Your task to perform on an android device: open app "Expedia: Hotels, Flights & Car" (install if not already installed) Image 0: 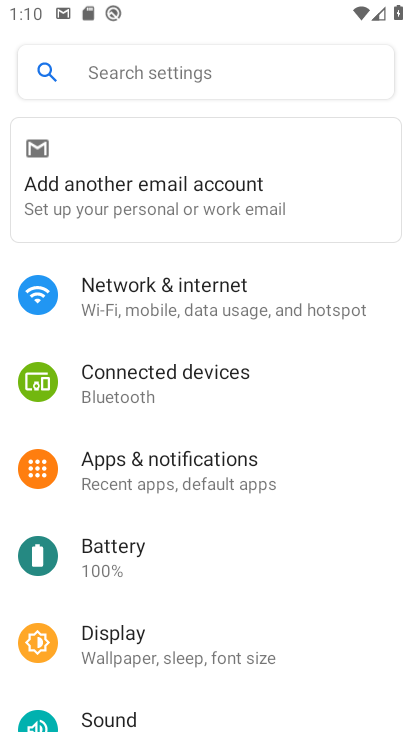
Step 0: press home button
Your task to perform on an android device: open app "Expedia: Hotels, Flights & Car" (install if not already installed) Image 1: 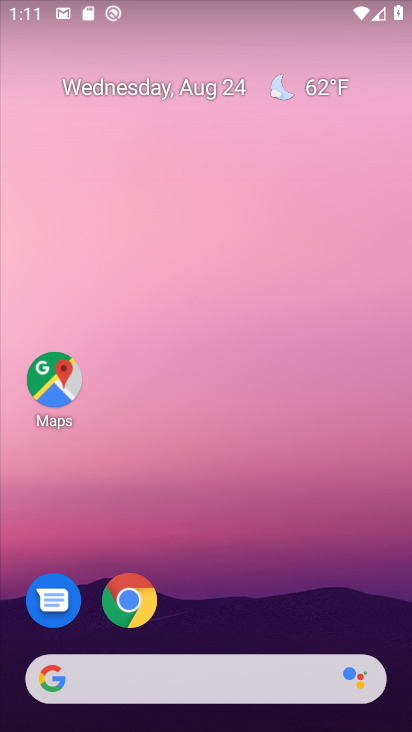
Step 1: drag from (302, 625) to (179, 83)
Your task to perform on an android device: open app "Expedia: Hotels, Flights & Car" (install if not already installed) Image 2: 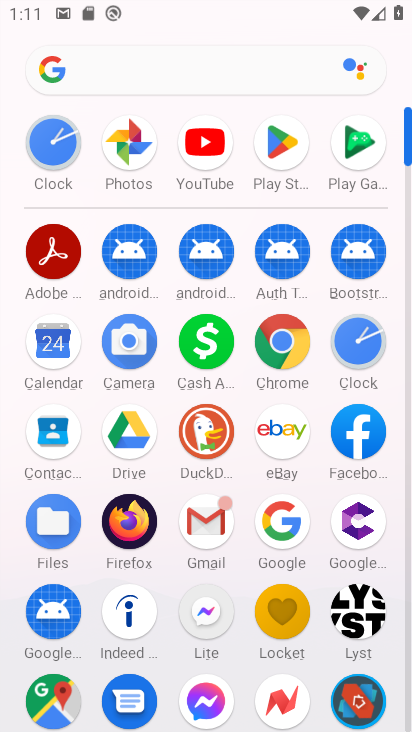
Step 2: click (274, 137)
Your task to perform on an android device: open app "Expedia: Hotels, Flights & Car" (install if not already installed) Image 3: 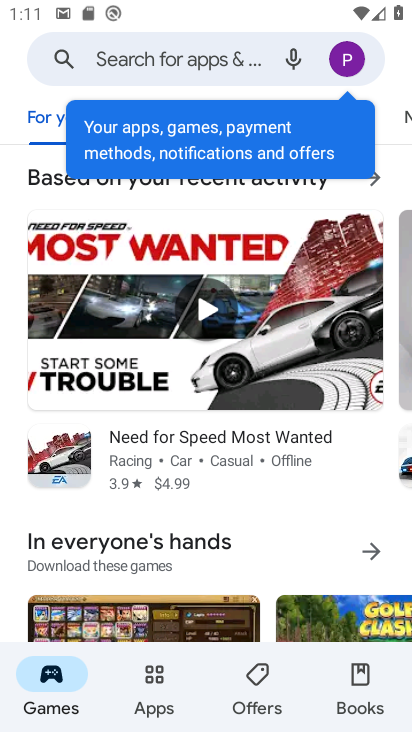
Step 3: press home button
Your task to perform on an android device: open app "Expedia: Hotels, Flights & Car" (install if not already installed) Image 4: 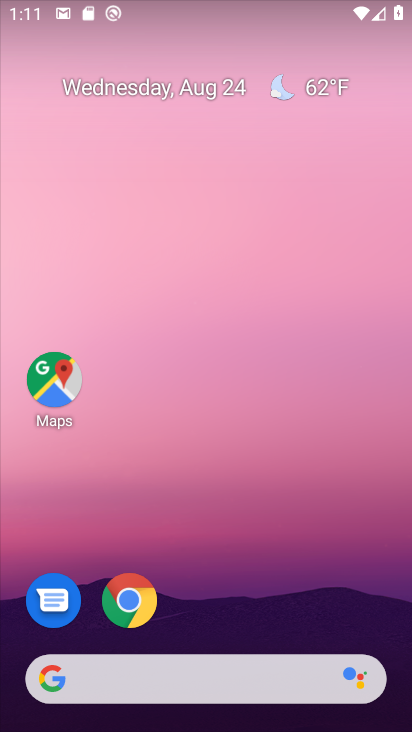
Step 4: drag from (277, 584) to (144, 10)
Your task to perform on an android device: open app "Expedia: Hotels, Flights & Car" (install if not already installed) Image 5: 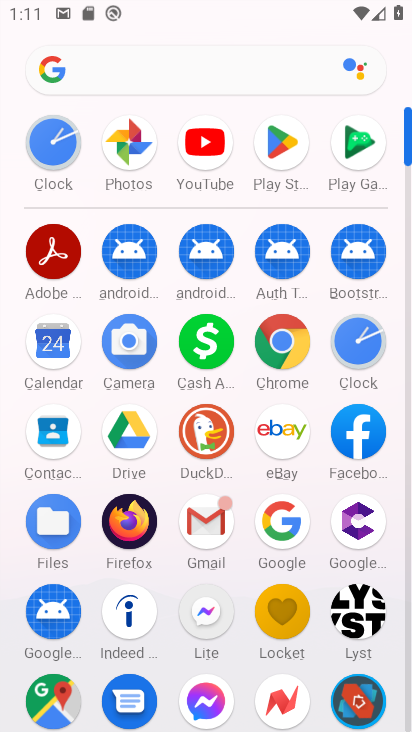
Step 5: click (284, 219)
Your task to perform on an android device: open app "Expedia: Hotels, Flights & Car" (install if not already installed) Image 6: 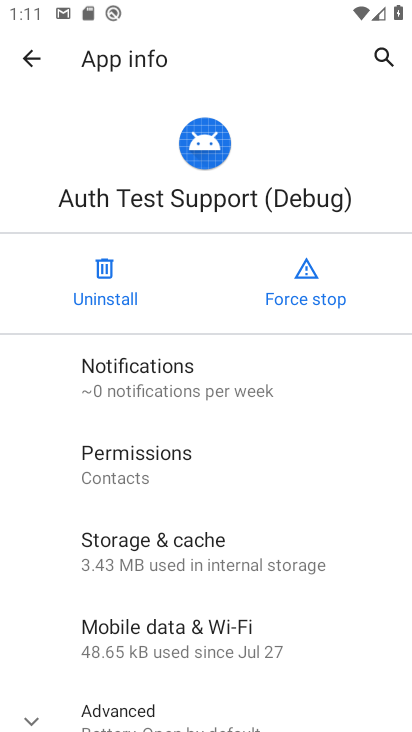
Step 6: click (284, 219)
Your task to perform on an android device: open app "Expedia: Hotels, Flights & Car" (install if not already installed) Image 7: 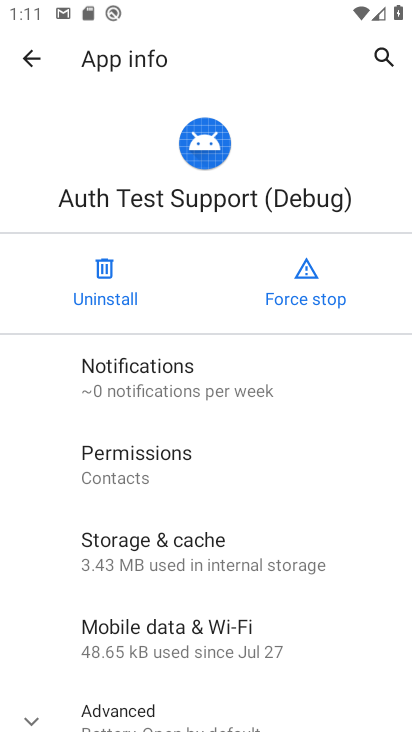
Step 7: click (389, 61)
Your task to perform on an android device: open app "Expedia: Hotels, Flights & Car" (install if not already installed) Image 8: 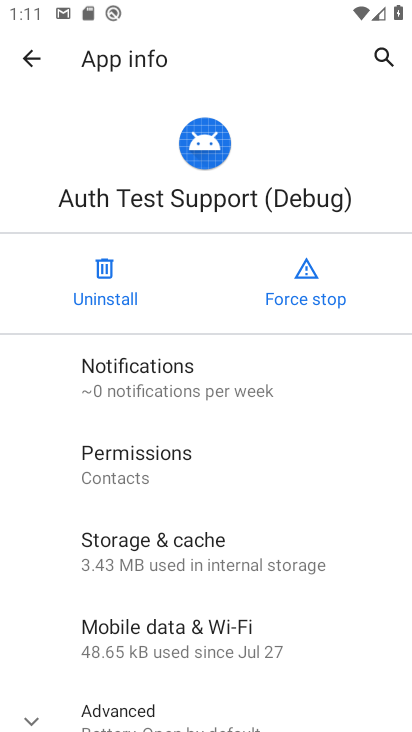
Step 8: press home button
Your task to perform on an android device: open app "Expedia: Hotels, Flights & Car" (install if not already installed) Image 9: 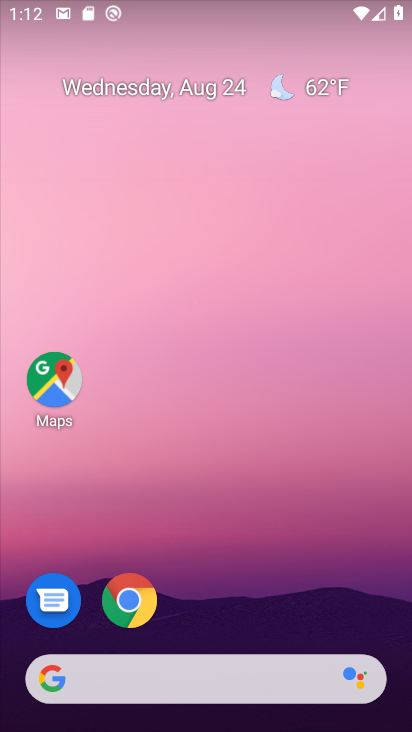
Step 9: drag from (270, 615) to (208, 182)
Your task to perform on an android device: open app "Expedia: Hotels, Flights & Car" (install if not already installed) Image 10: 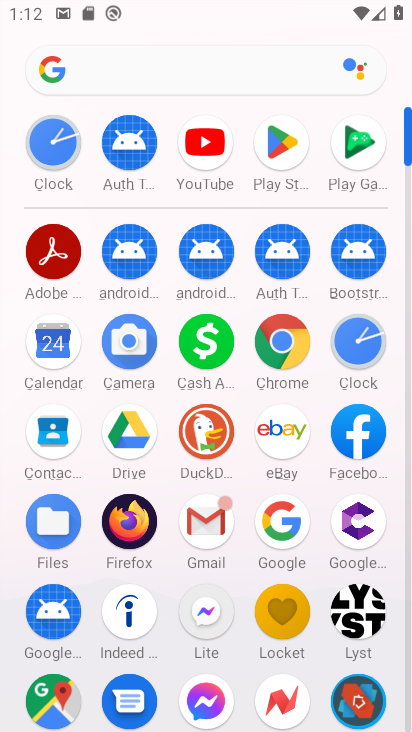
Step 10: click (273, 181)
Your task to perform on an android device: open app "Expedia: Hotels, Flights & Car" (install if not already installed) Image 11: 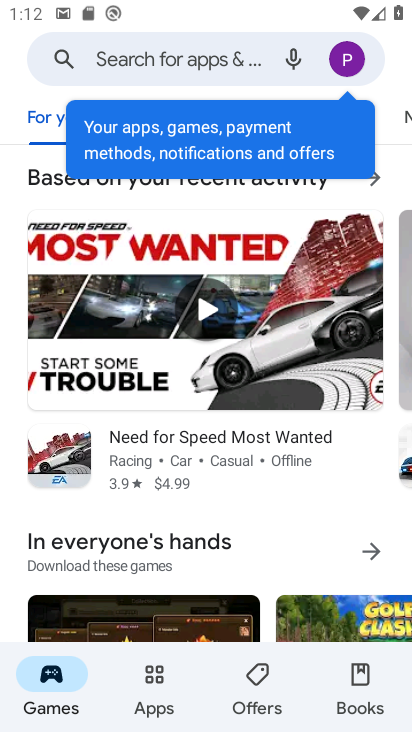
Step 11: click (163, 65)
Your task to perform on an android device: open app "Expedia: Hotels, Flights & Car" (install if not already installed) Image 12: 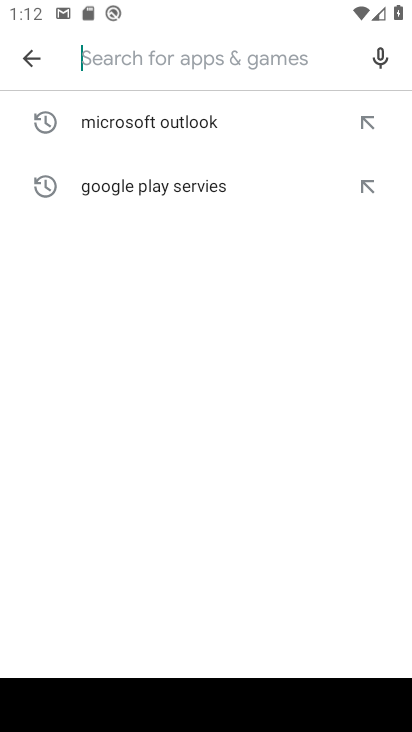
Step 12: type "expedia"
Your task to perform on an android device: open app "Expedia: Hotels, Flights & Car" (install if not already installed) Image 13: 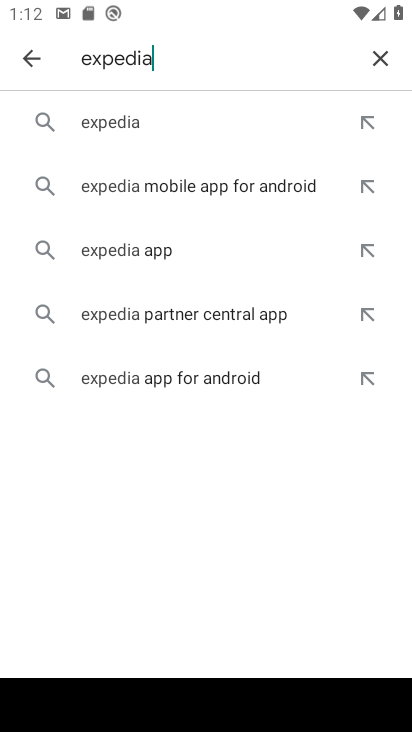
Step 13: click (227, 127)
Your task to perform on an android device: open app "Expedia: Hotels, Flights & Car" (install if not already installed) Image 14: 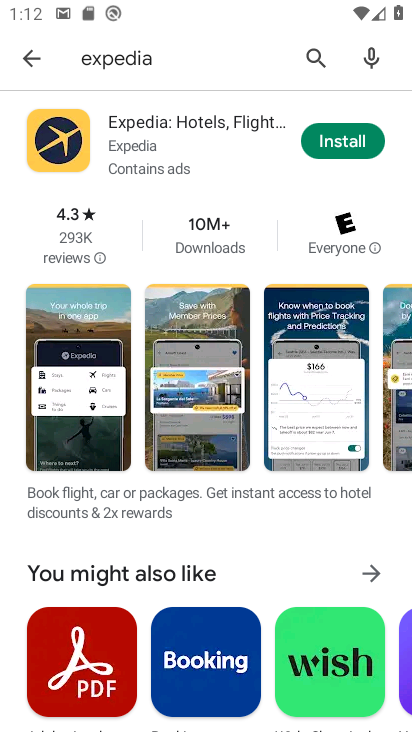
Step 14: click (327, 143)
Your task to perform on an android device: open app "Expedia: Hotels, Flights & Car" (install if not already installed) Image 15: 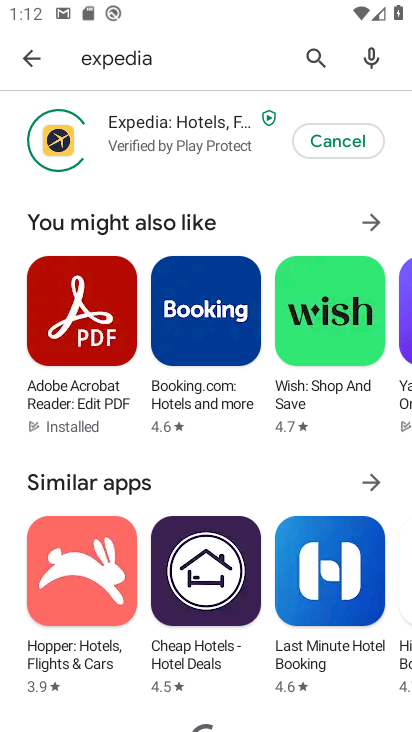
Step 15: task complete